Your task to perform on an android device: turn off location history Image 0: 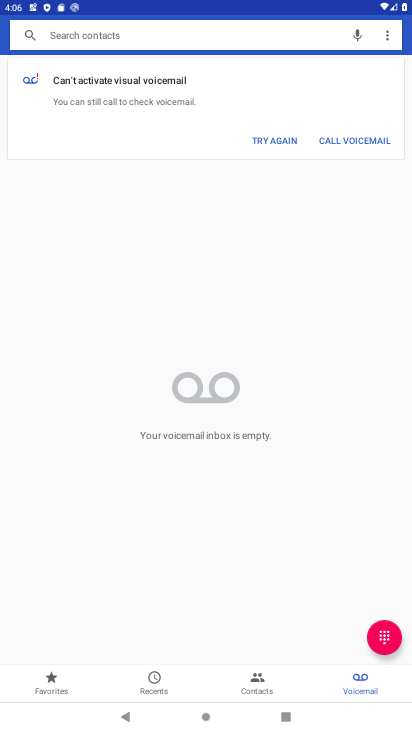
Step 0: press home button
Your task to perform on an android device: turn off location history Image 1: 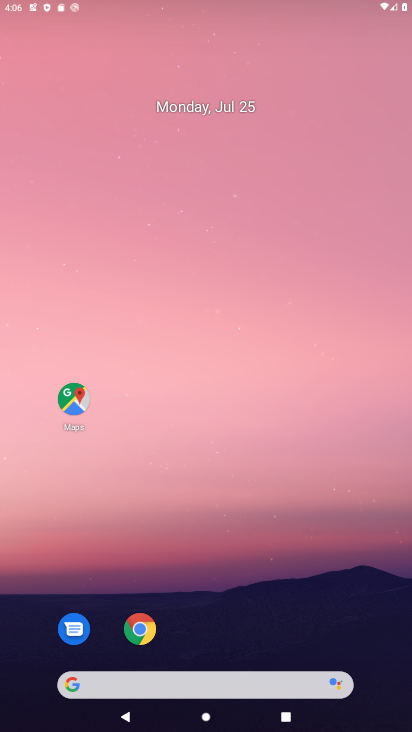
Step 1: drag from (214, 662) to (250, 41)
Your task to perform on an android device: turn off location history Image 2: 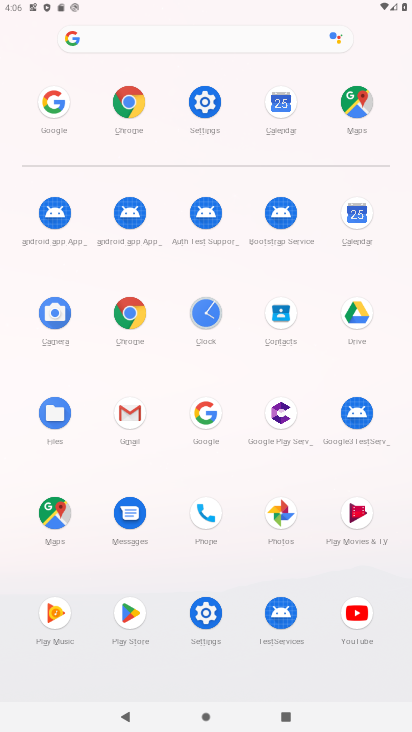
Step 2: click (203, 95)
Your task to perform on an android device: turn off location history Image 3: 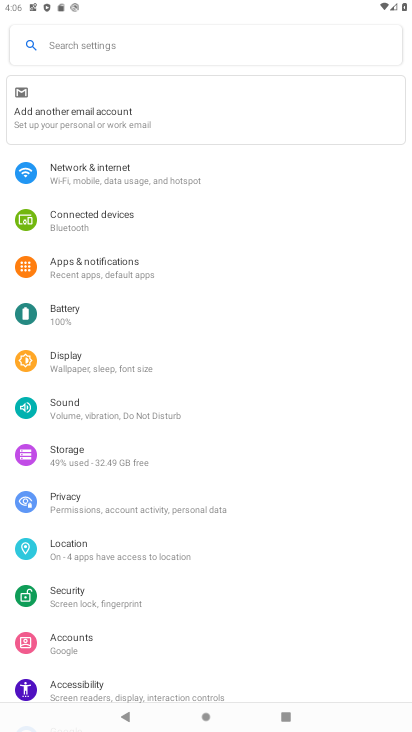
Step 3: click (87, 544)
Your task to perform on an android device: turn off location history Image 4: 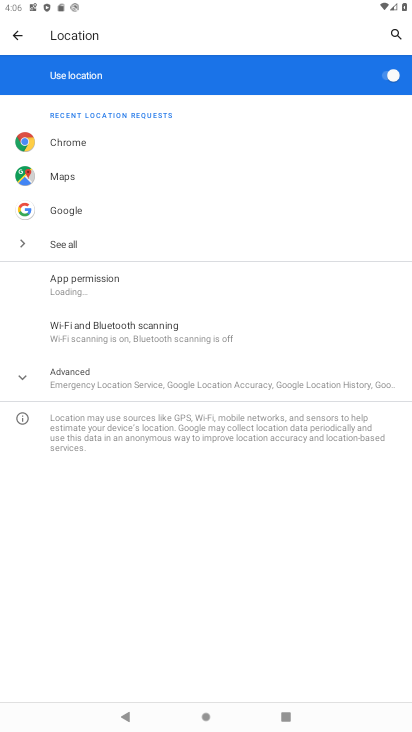
Step 4: click (142, 383)
Your task to perform on an android device: turn off location history Image 5: 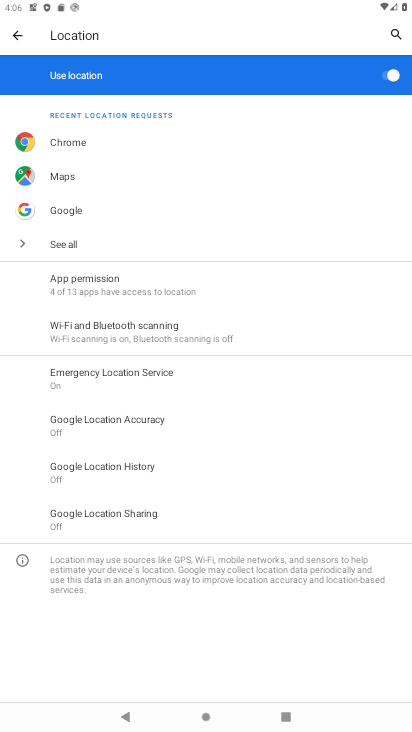
Step 5: click (138, 475)
Your task to perform on an android device: turn off location history Image 6: 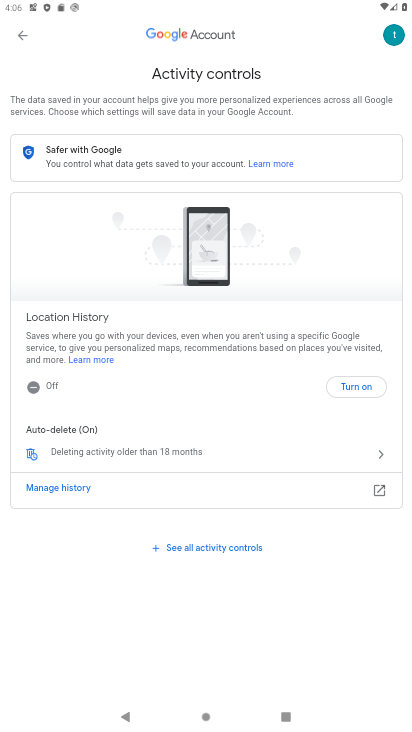
Step 6: click (178, 546)
Your task to perform on an android device: turn off location history Image 7: 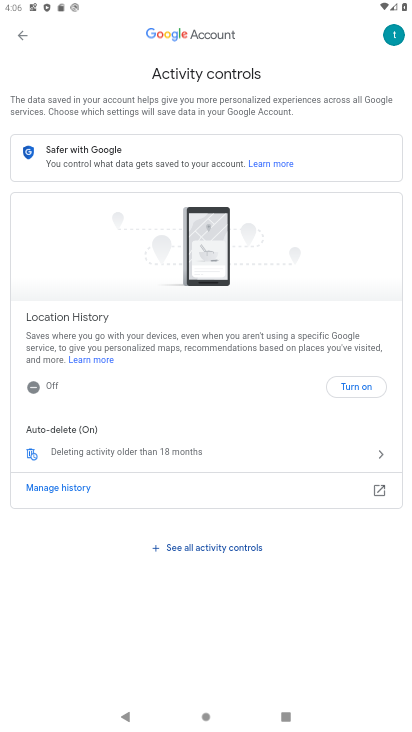
Step 7: click (181, 546)
Your task to perform on an android device: turn off location history Image 8: 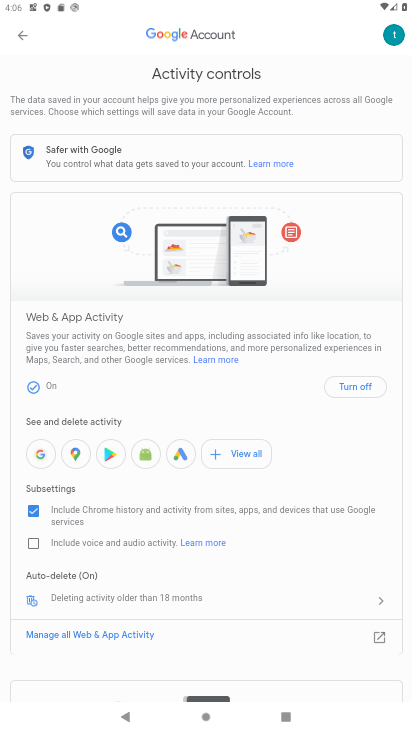
Step 8: click (234, 551)
Your task to perform on an android device: turn off location history Image 9: 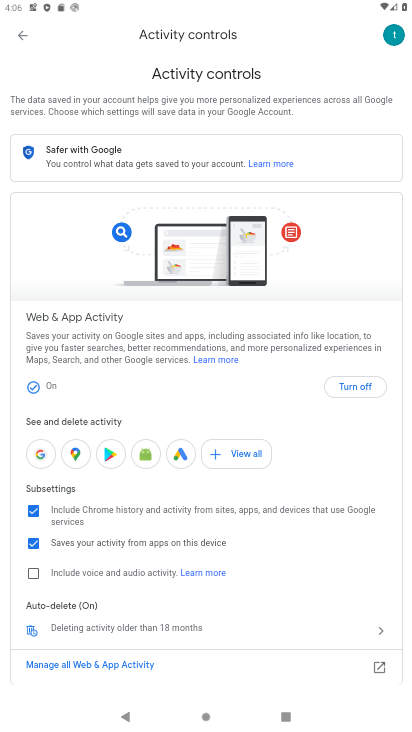
Step 9: click (359, 388)
Your task to perform on an android device: turn off location history Image 10: 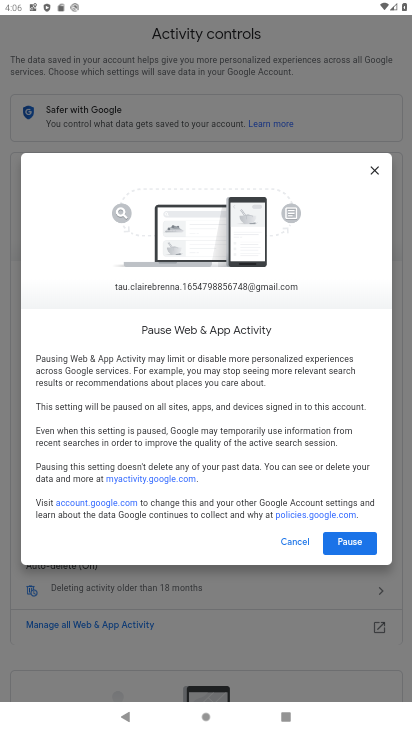
Step 10: click (351, 535)
Your task to perform on an android device: turn off location history Image 11: 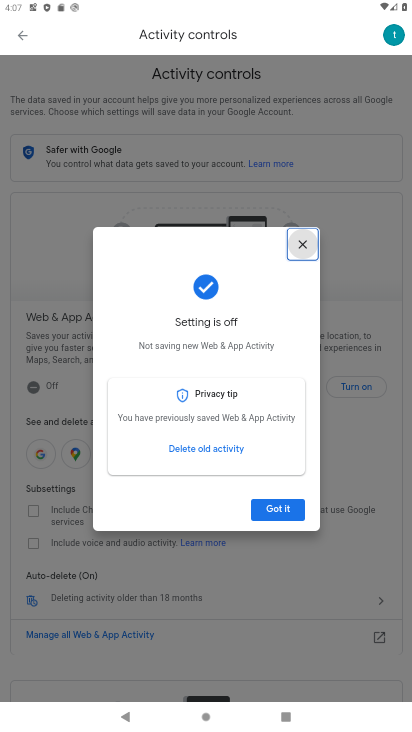
Step 11: click (280, 513)
Your task to perform on an android device: turn off location history Image 12: 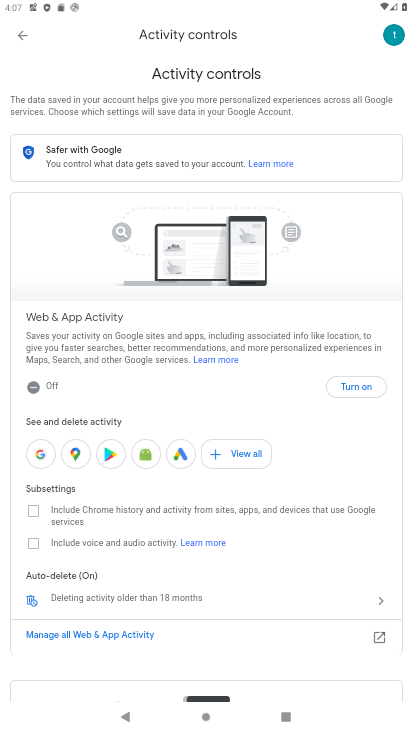
Step 12: task complete